Your task to perform on an android device: open app "Facebook Lite" (install if not already installed) and enter user name: "suppers@inbox.com" and password: "downplayed" Image 0: 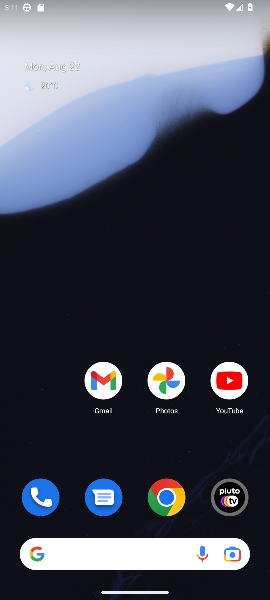
Step 0: press home button
Your task to perform on an android device: open app "Facebook Lite" (install if not already installed) and enter user name: "suppers@inbox.com" and password: "downplayed" Image 1: 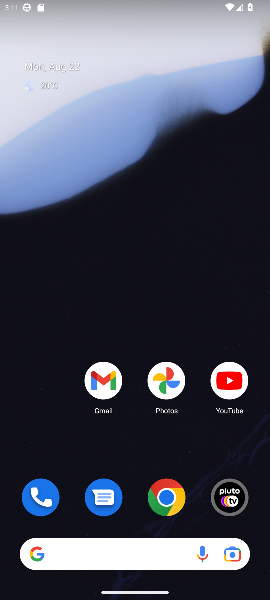
Step 1: drag from (55, 424) to (57, 84)
Your task to perform on an android device: open app "Facebook Lite" (install if not already installed) and enter user name: "suppers@inbox.com" and password: "downplayed" Image 2: 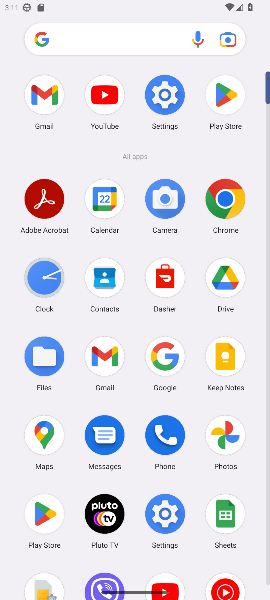
Step 2: click (224, 88)
Your task to perform on an android device: open app "Facebook Lite" (install if not already installed) and enter user name: "suppers@inbox.com" and password: "downplayed" Image 3: 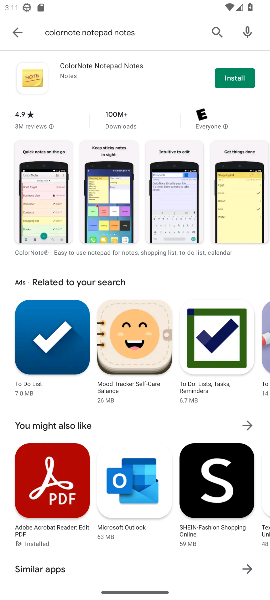
Step 3: press back button
Your task to perform on an android device: open app "Facebook Lite" (install if not already installed) and enter user name: "suppers@inbox.com" and password: "downplayed" Image 4: 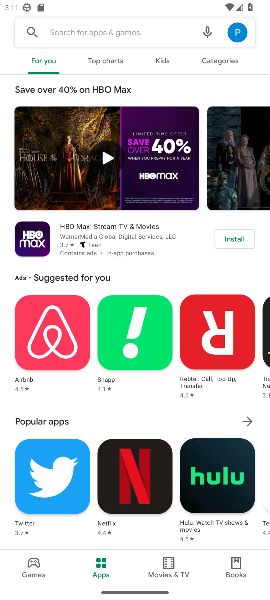
Step 4: click (154, 25)
Your task to perform on an android device: open app "Facebook Lite" (install if not already installed) and enter user name: "suppers@inbox.com" and password: "downplayed" Image 5: 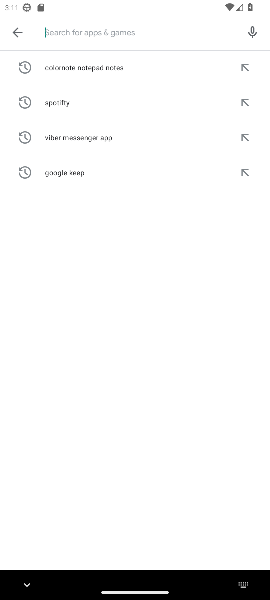
Step 5: press enter
Your task to perform on an android device: open app "Facebook Lite" (install if not already installed) and enter user name: "suppers@inbox.com" and password: "downplayed" Image 6: 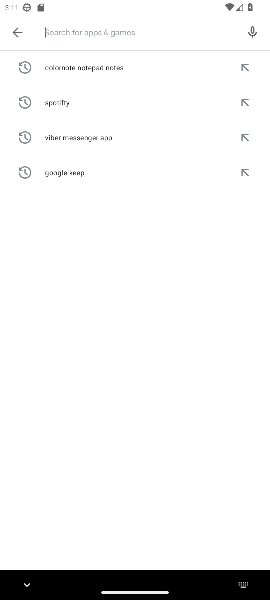
Step 6: type "facebook lite"
Your task to perform on an android device: open app "Facebook Lite" (install if not already installed) and enter user name: "suppers@inbox.com" and password: "downplayed" Image 7: 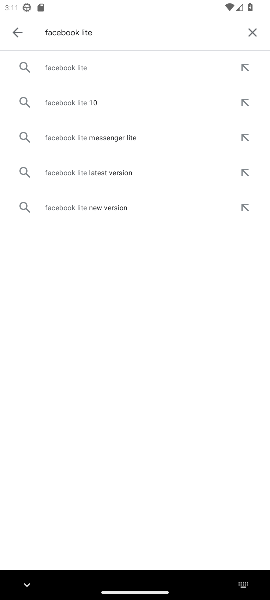
Step 7: click (95, 63)
Your task to perform on an android device: open app "Facebook Lite" (install if not already installed) and enter user name: "suppers@inbox.com" and password: "downplayed" Image 8: 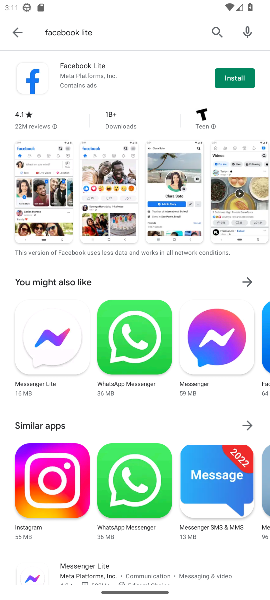
Step 8: click (233, 75)
Your task to perform on an android device: open app "Facebook Lite" (install if not already installed) and enter user name: "suppers@inbox.com" and password: "downplayed" Image 9: 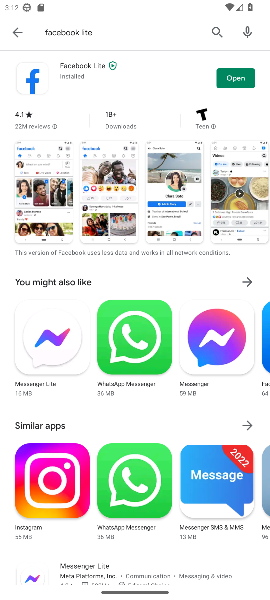
Step 9: click (241, 79)
Your task to perform on an android device: open app "Facebook Lite" (install if not already installed) and enter user name: "suppers@inbox.com" and password: "downplayed" Image 10: 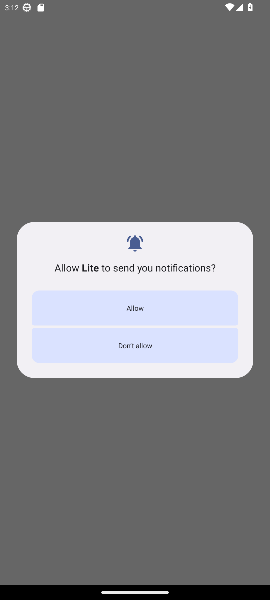
Step 10: click (175, 314)
Your task to perform on an android device: open app "Facebook Lite" (install if not already installed) and enter user name: "suppers@inbox.com" and password: "downplayed" Image 11: 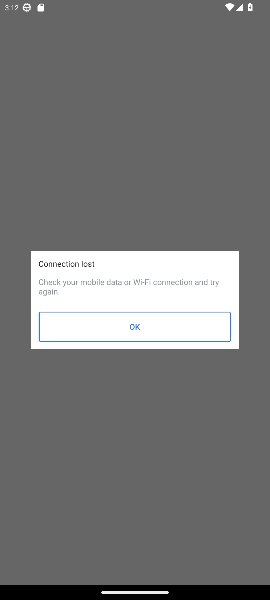
Step 11: click (141, 324)
Your task to perform on an android device: open app "Facebook Lite" (install if not already installed) and enter user name: "suppers@inbox.com" and password: "downplayed" Image 12: 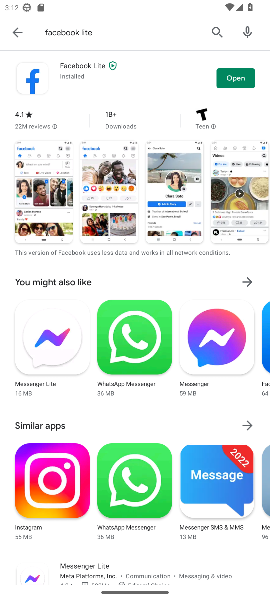
Step 12: click (240, 75)
Your task to perform on an android device: open app "Facebook Lite" (install if not already installed) and enter user name: "suppers@inbox.com" and password: "downplayed" Image 13: 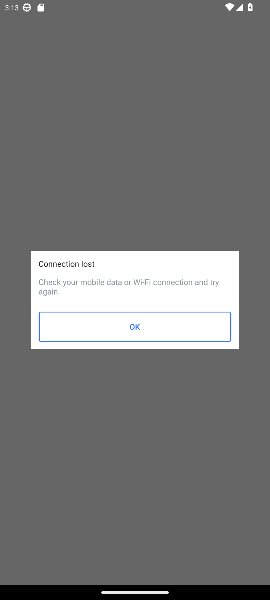
Step 13: task complete